Your task to perform on an android device: turn notification dots off Image 0: 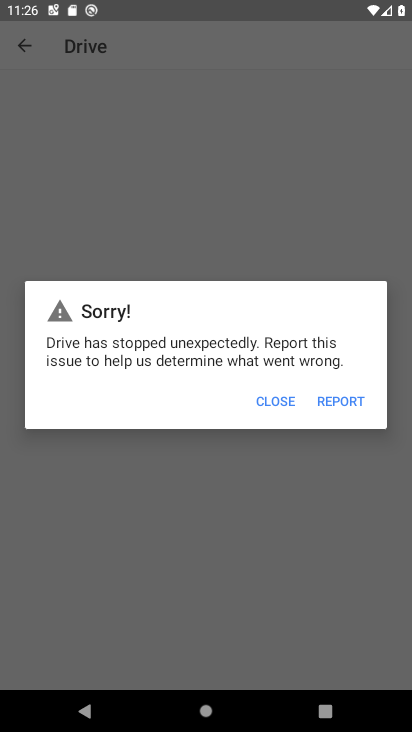
Step 0: press back button
Your task to perform on an android device: turn notification dots off Image 1: 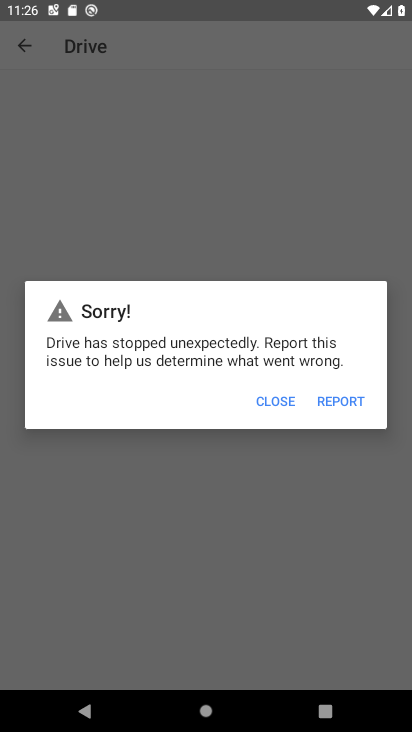
Step 1: press back button
Your task to perform on an android device: turn notification dots off Image 2: 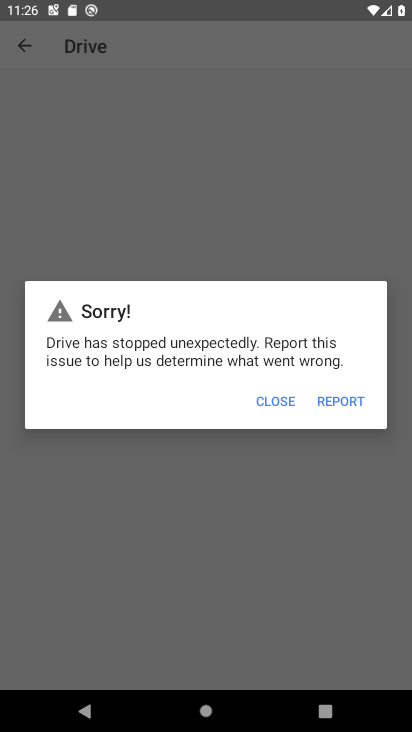
Step 2: click (264, 400)
Your task to perform on an android device: turn notification dots off Image 3: 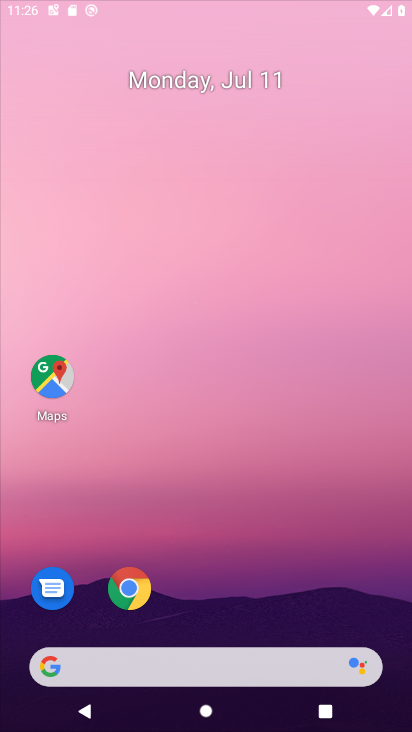
Step 3: press home button
Your task to perform on an android device: turn notification dots off Image 4: 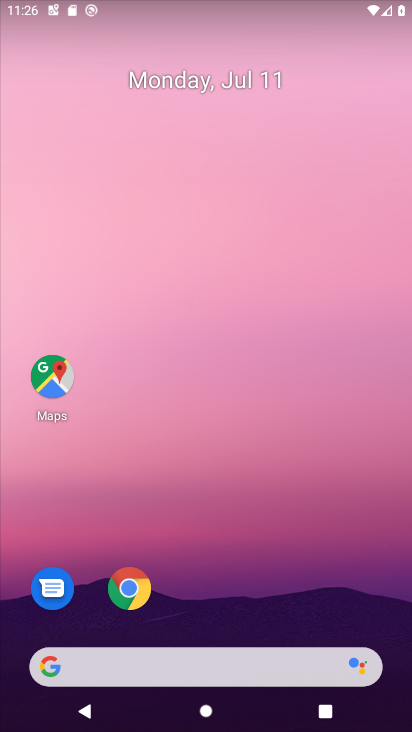
Step 4: drag from (247, 680) to (218, 111)
Your task to perform on an android device: turn notification dots off Image 5: 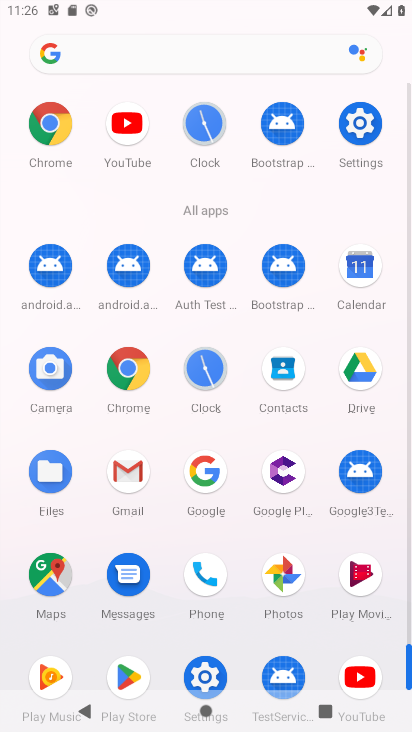
Step 5: click (342, 138)
Your task to perform on an android device: turn notification dots off Image 6: 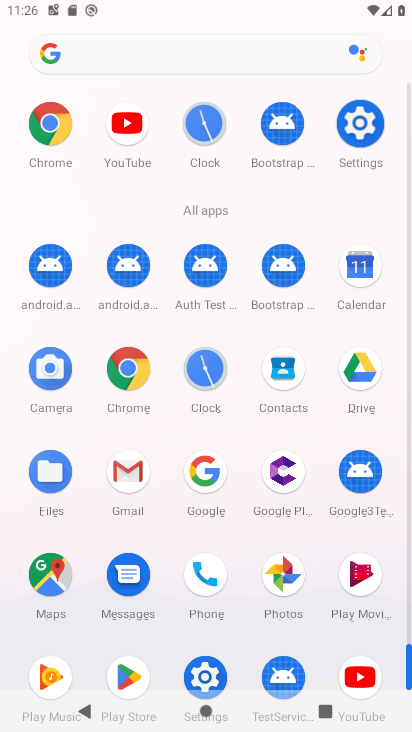
Step 6: click (347, 133)
Your task to perform on an android device: turn notification dots off Image 7: 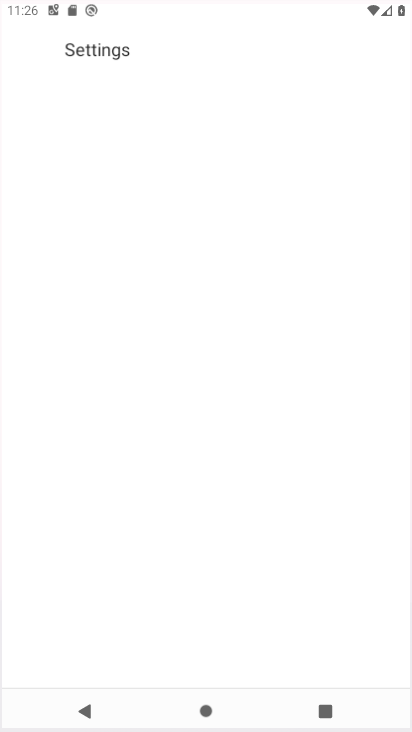
Step 7: click (349, 132)
Your task to perform on an android device: turn notification dots off Image 8: 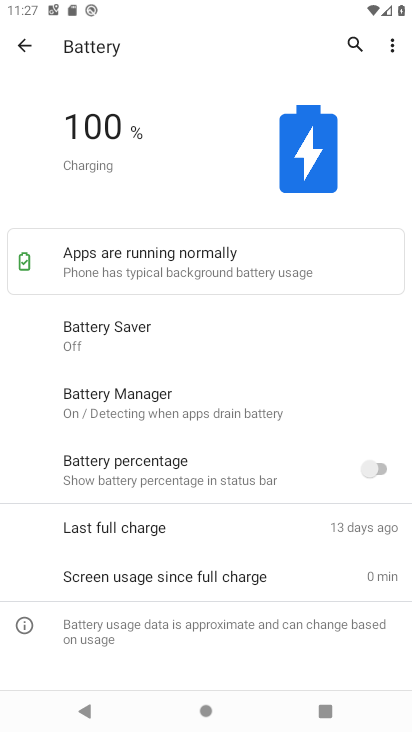
Step 8: click (21, 53)
Your task to perform on an android device: turn notification dots off Image 9: 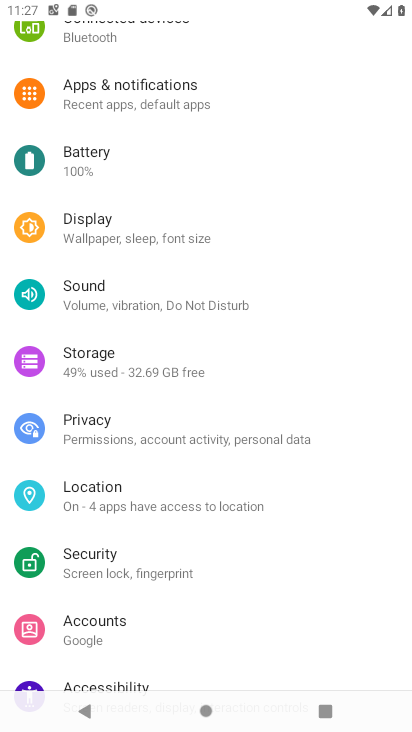
Step 9: drag from (115, 589) to (99, 366)
Your task to perform on an android device: turn notification dots off Image 10: 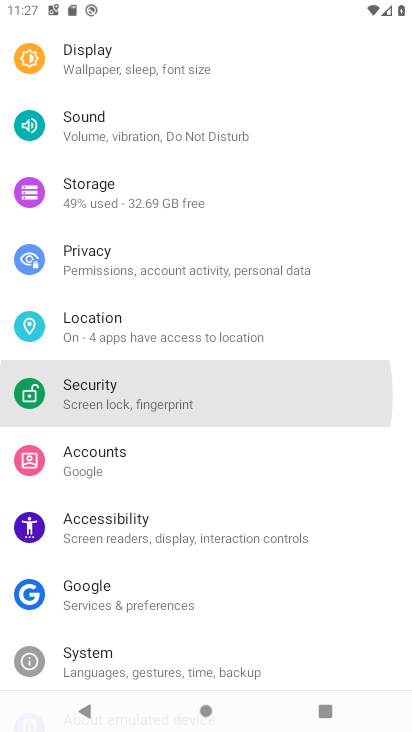
Step 10: drag from (128, 537) to (128, 330)
Your task to perform on an android device: turn notification dots off Image 11: 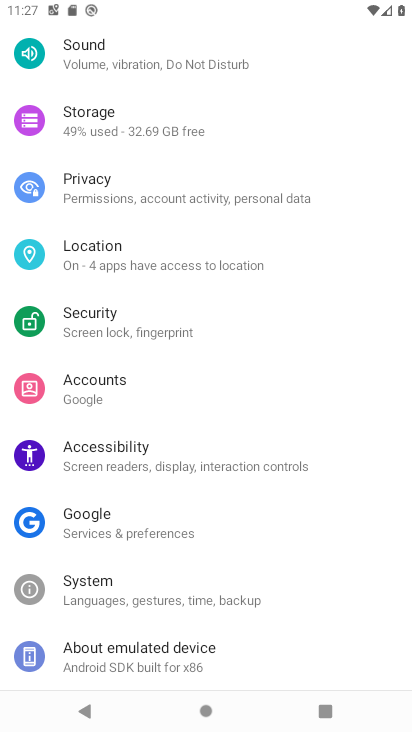
Step 11: drag from (135, 298) to (180, 641)
Your task to perform on an android device: turn notification dots off Image 12: 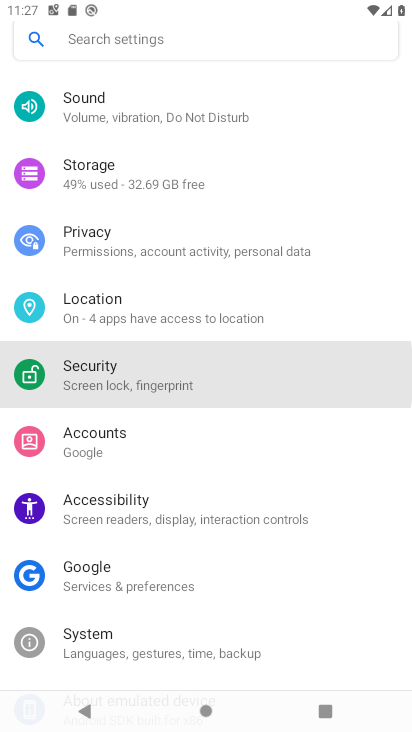
Step 12: drag from (125, 303) to (163, 563)
Your task to perform on an android device: turn notification dots off Image 13: 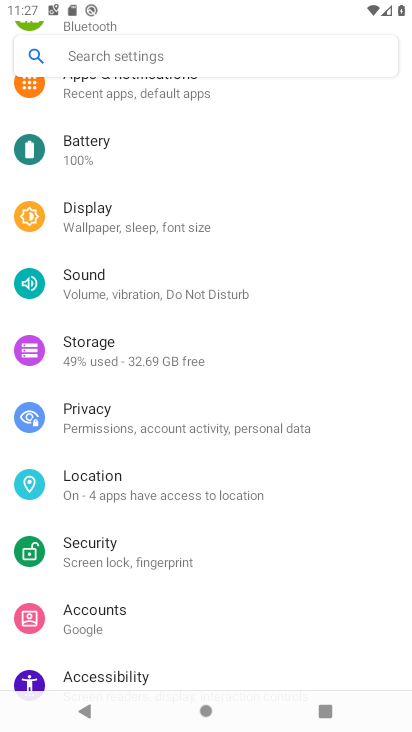
Step 13: drag from (163, 205) to (230, 643)
Your task to perform on an android device: turn notification dots off Image 14: 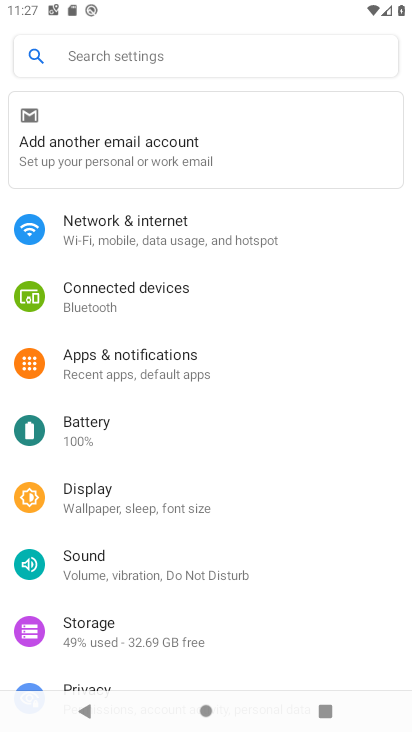
Step 14: click (130, 362)
Your task to perform on an android device: turn notification dots off Image 15: 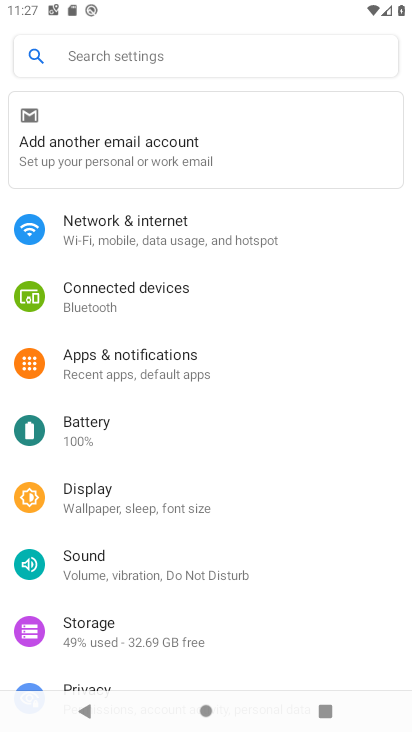
Step 15: click (132, 362)
Your task to perform on an android device: turn notification dots off Image 16: 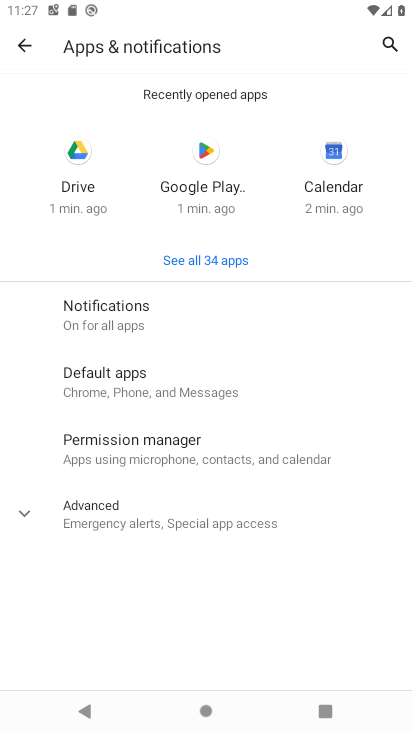
Step 16: click (103, 302)
Your task to perform on an android device: turn notification dots off Image 17: 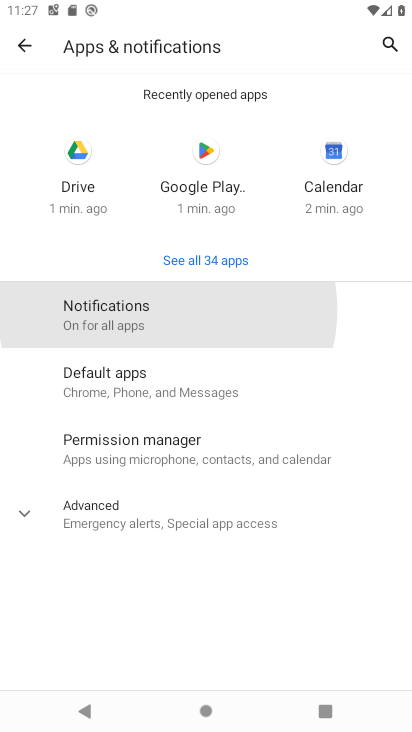
Step 17: click (106, 301)
Your task to perform on an android device: turn notification dots off Image 18: 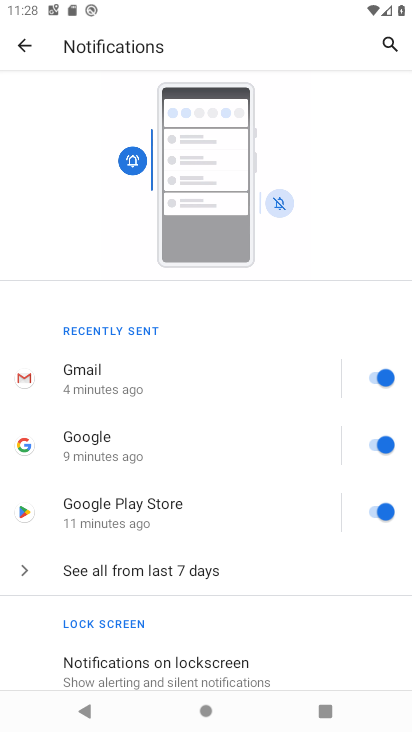
Step 18: drag from (140, 651) to (113, 286)
Your task to perform on an android device: turn notification dots off Image 19: 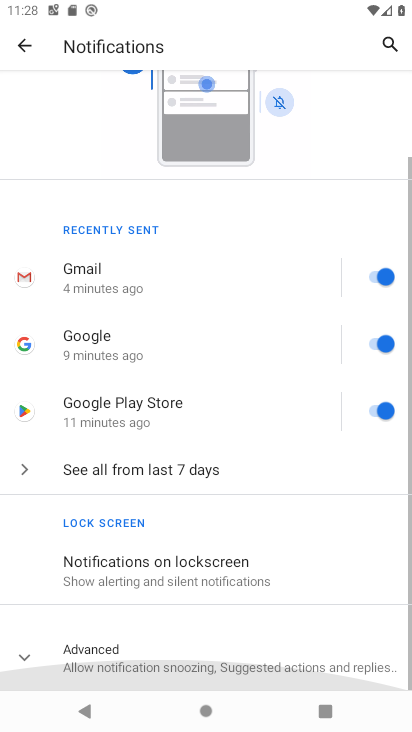
Step 19: drag from (186, 460) to (233, 298)
Your task to perform on an android device: turn notification dots off Image 20: 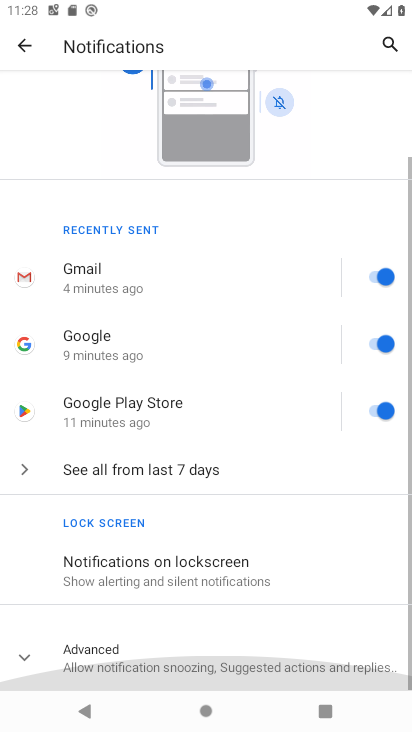
Step 20: drag from (147, 547) to (186, 314)
Your task to perform on an android device: turn notification dots off Image 21: 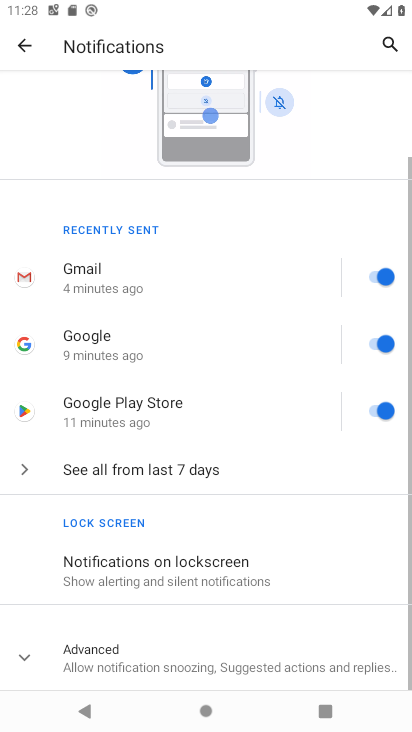
Step 21: click (101, 665)
Your task to perform on an android device: turn notification dots off Image 22: 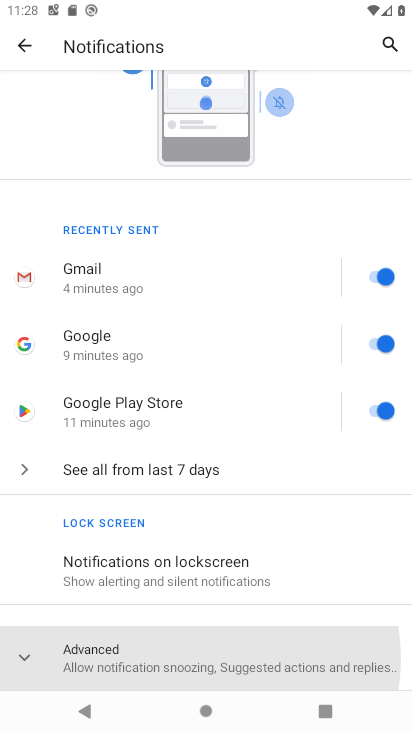
Step 22: click (107, 658)
Your task to perform on an android device: turn notification dots off Image 23: 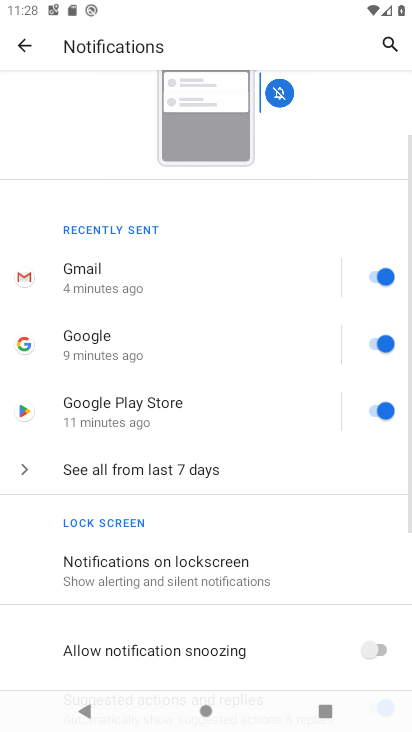
Step 23: drag from (226, 607) to (171, 231)
Your task to perform on an android device: turn notification dots off Image 24: 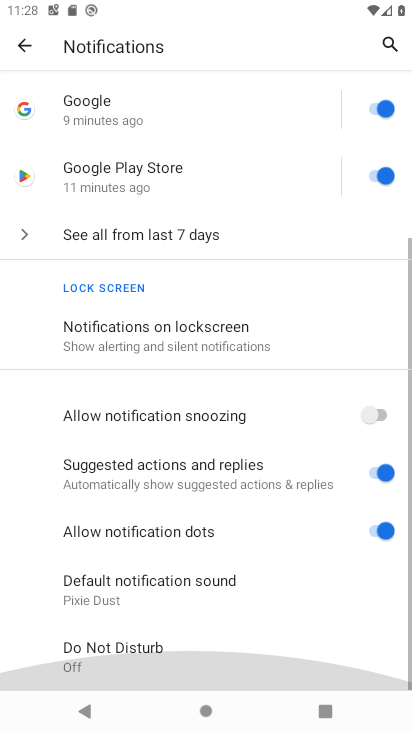
Step 24: drag from (231, 490) to (218, 76)
Your task to perform on an android device: turn notification dots off Image 25: 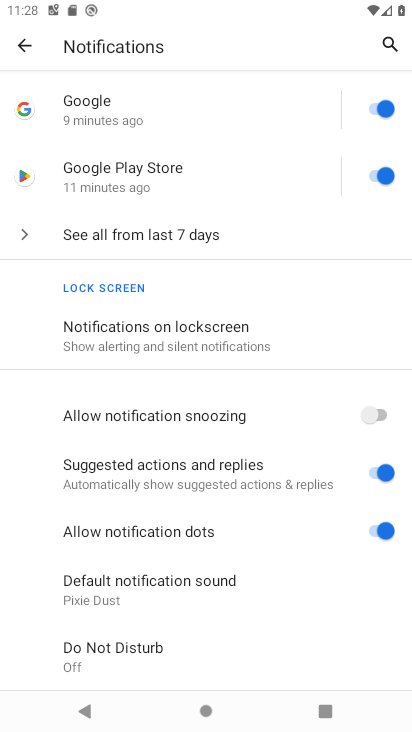
Step 25: click (386, 531)
Your task to perform on an android device: turn notification dots off Image 26: 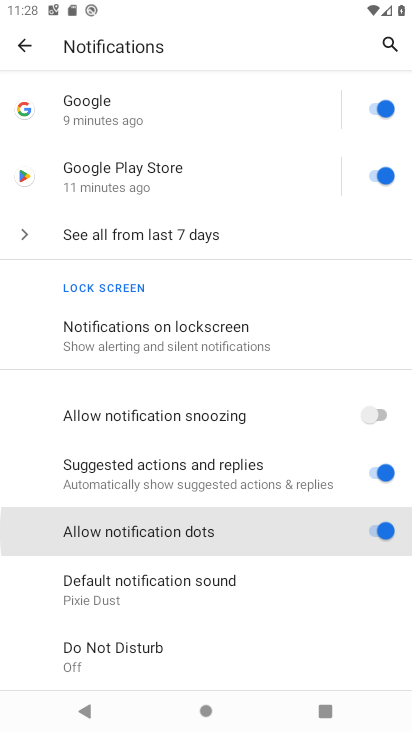
Step 26: click (386, 528)
Your task to perform on an android device: turn notification dots off Image 27: 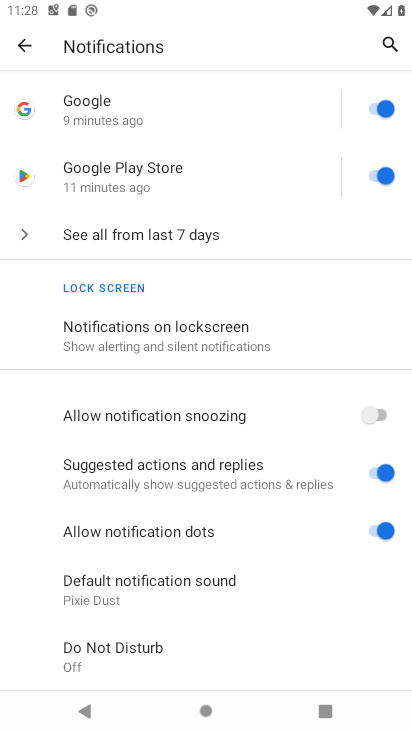
Step 27: click (378, 531)
Your task to perform on an android device: turn notification dots off Image 28: 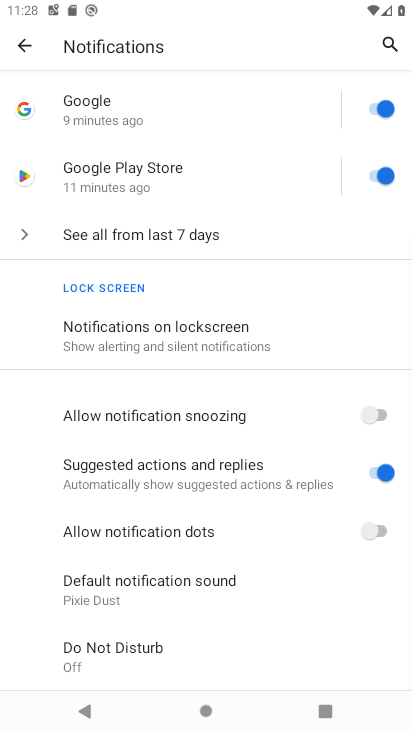
Step 28: task complete